Your task to perform on an android device: toggle airplane mode Image 0: 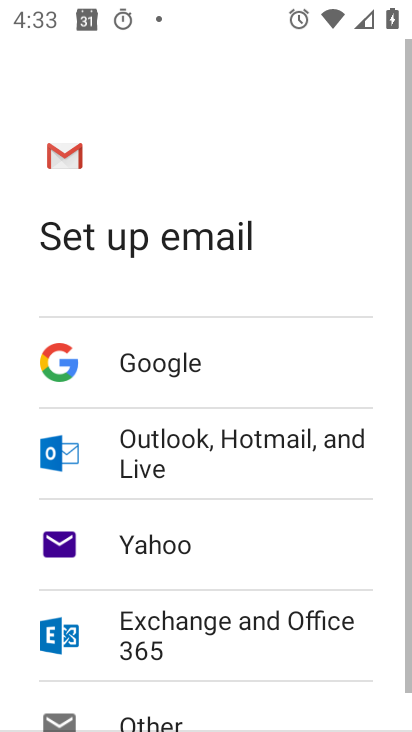
Step 0: press home button
Your task to perform on an android device: toggle airplane mode Image 1: 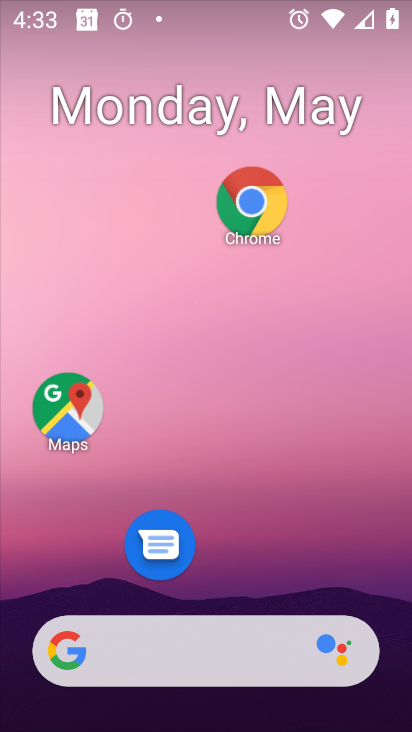
Step 1: drag from (235, 593) to (213, 98)
Your task to perform on an android device: toggle airplane mode Image 2: 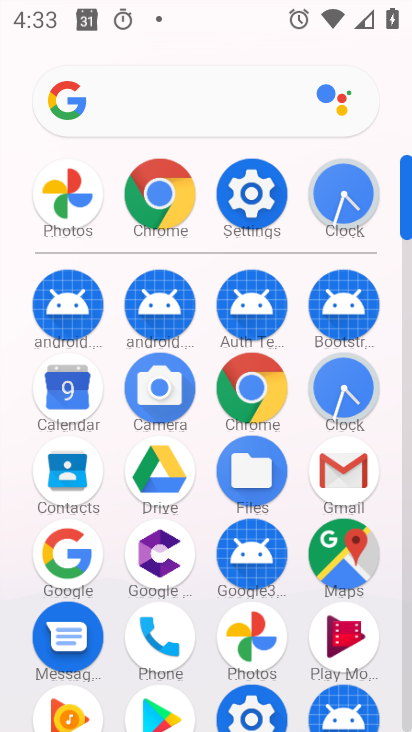
Step 2: click (244, 170)
Your task to perform on an android device: toggle airplane mode Image 3: 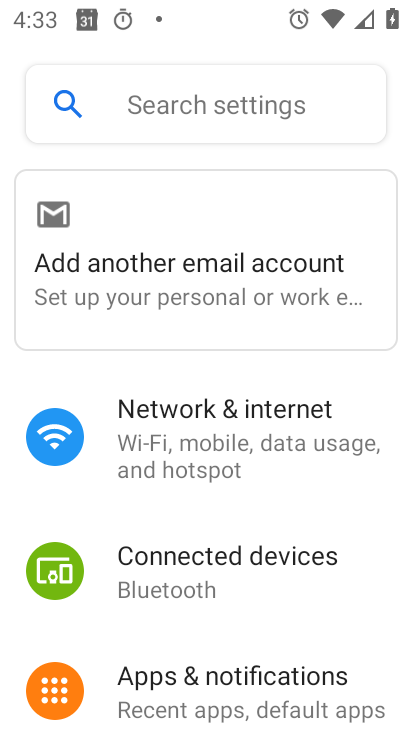
Step 3: click (237, 447)
Your task to perform on an android device: toggle airplane mode Image 4: 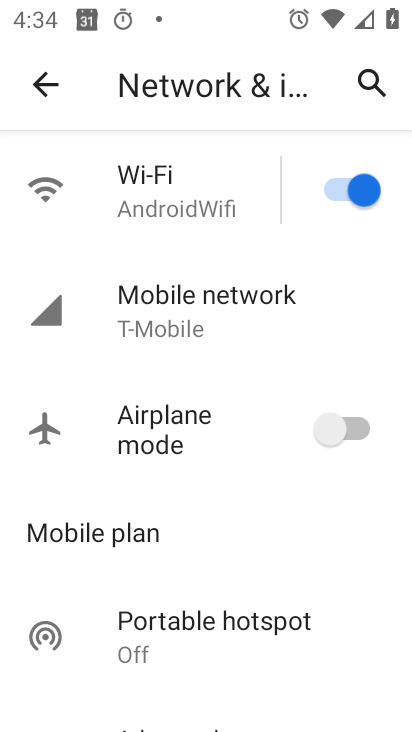
Step 4: click (183, 309)
Your task to perform on an android device: toggle airplane mode Image 5: 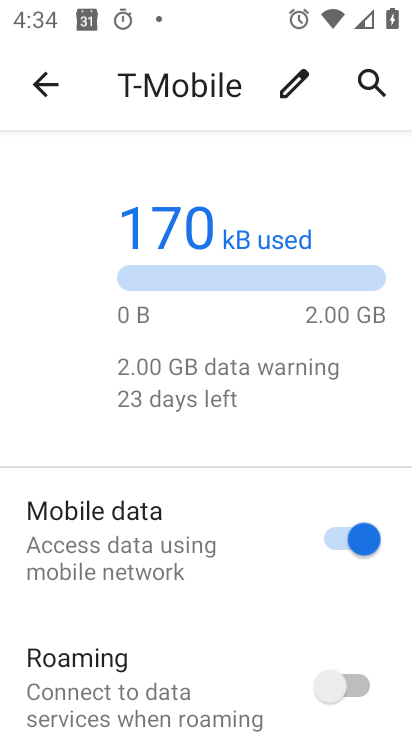
Step 5: click (56, 83)
Your task to perform on an android device: toggle airplane mode Image 6: 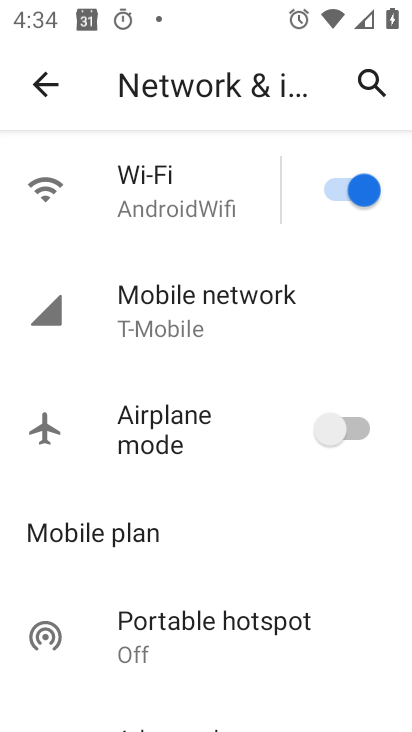
Step 6: click (356, 422)
Your task to perform on an android device: toggle airplane mode Image 7: 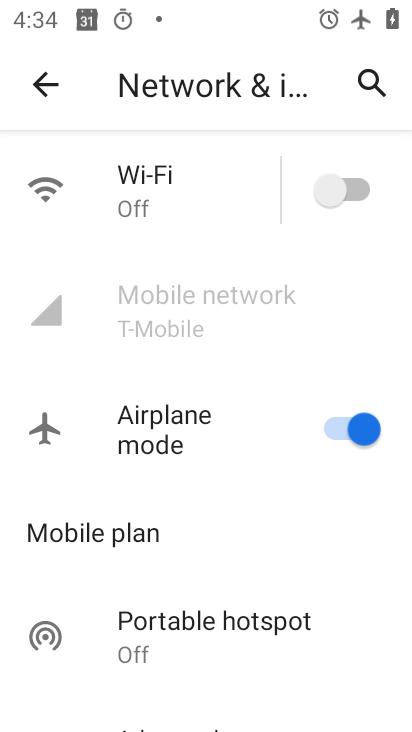
Step 7: task complete